Your task to perform on an android device: delete a single message in the gmail app Image 0: 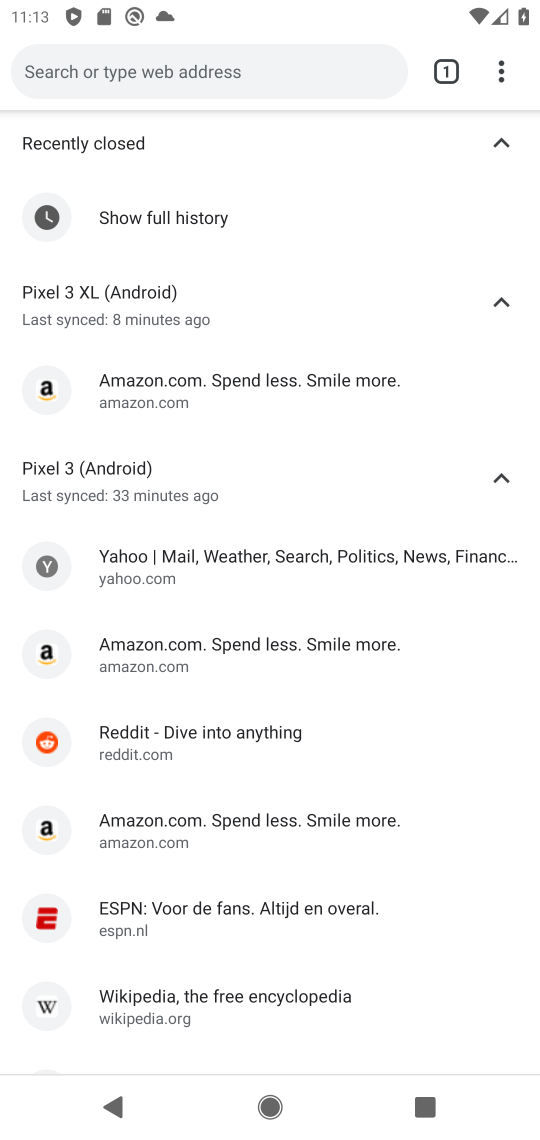
Step 0: press home button
Your task to perform on an android device: delete a single message in the gmail app Image 1: 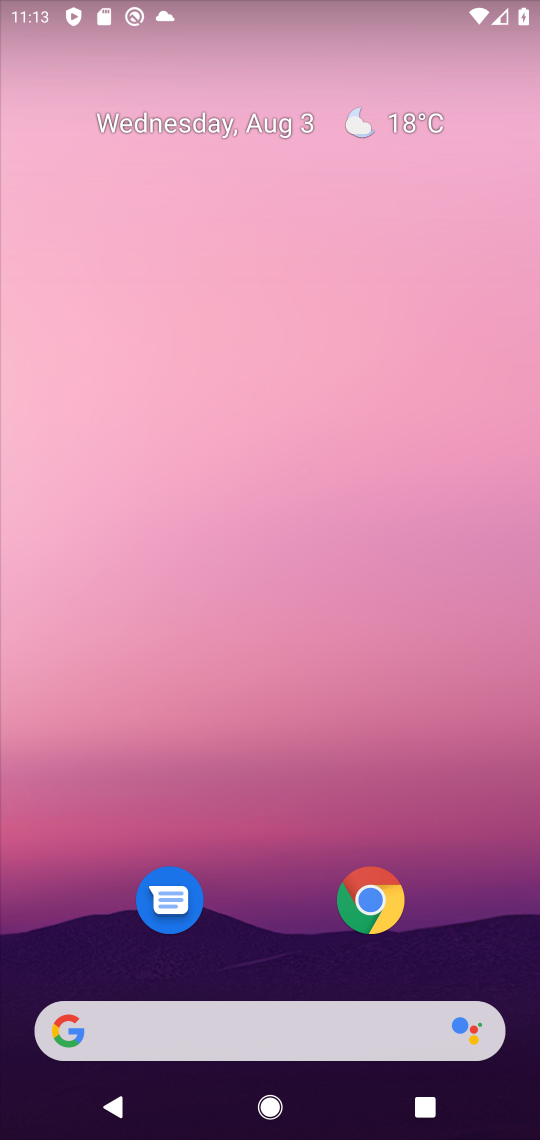
Step 1: drag from (328, 776) to (340, 19)
Your task to perform on an android device: delete a single message in the gmail app Image 2: 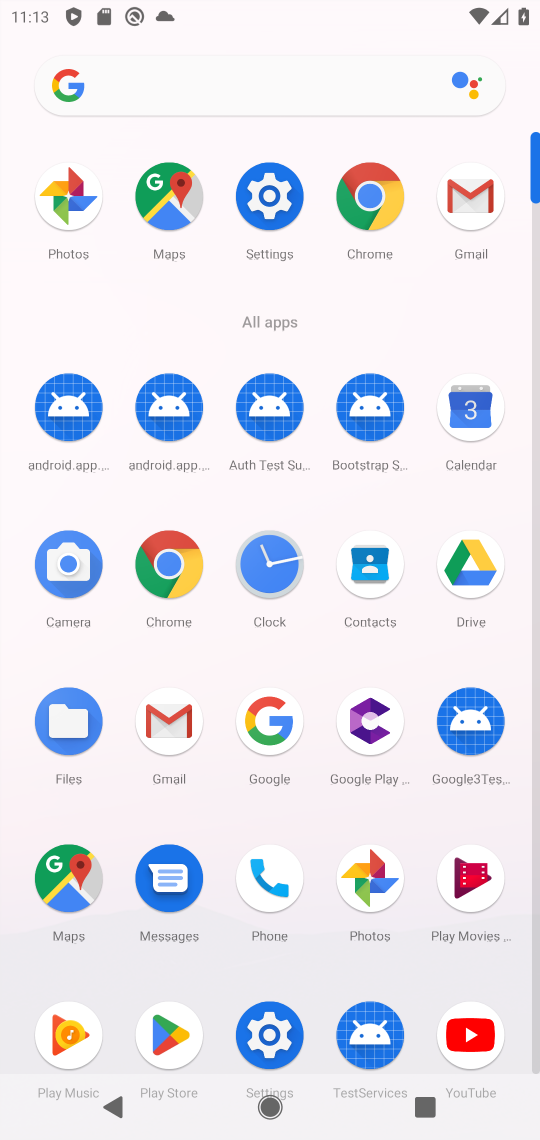
Step 2: click (473, 193)
Your task to perform on an android device: delete a single message in the gmail app Image 3: 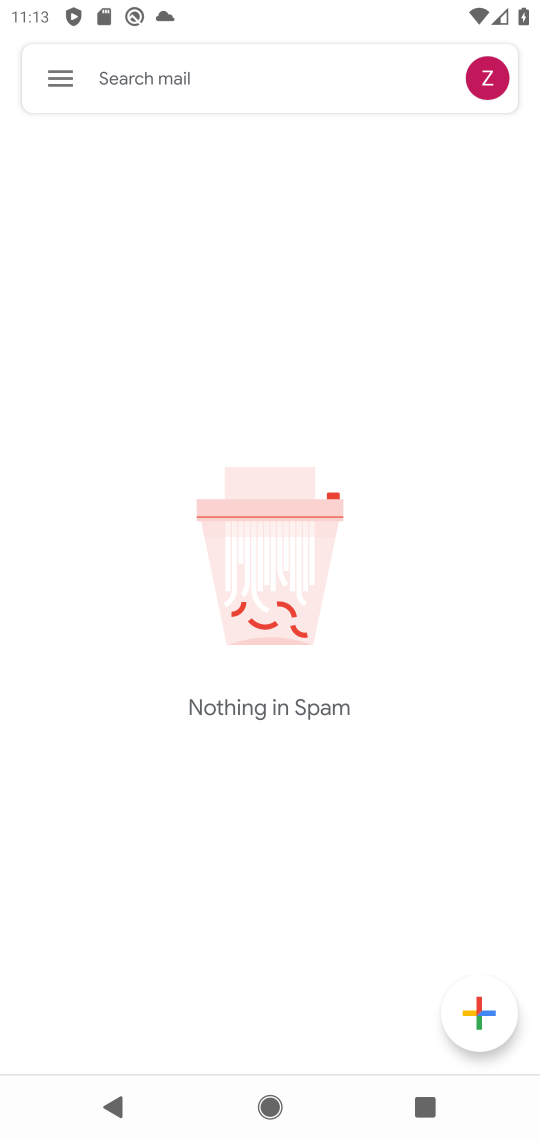
Step 3: click (62, 82)
Your task to perform on an android device: delete a single message in the gmail app Image 4: 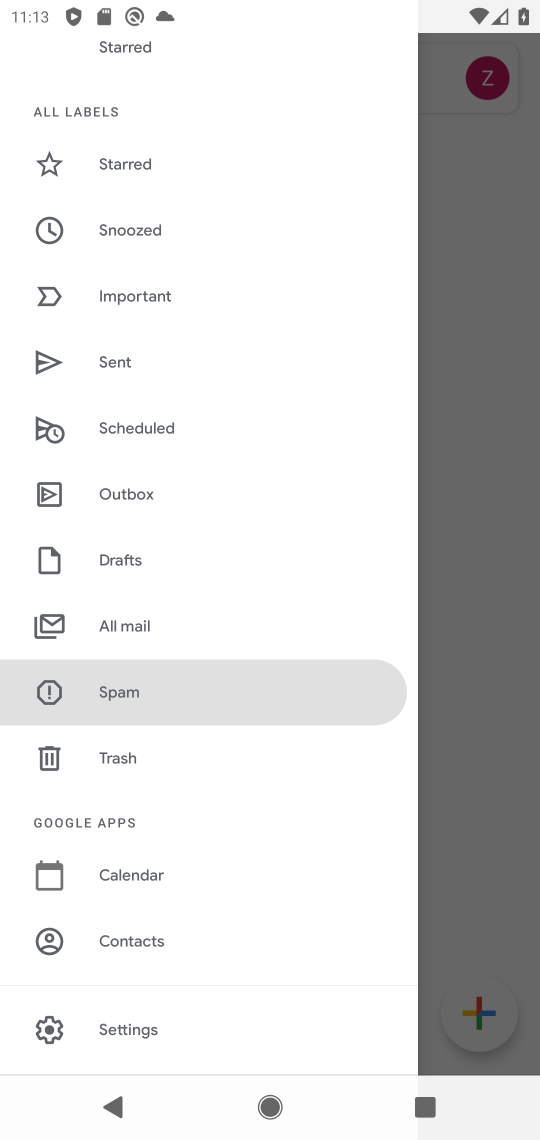
Step 4: click (119, 615)
Your task to perform on an android device: delete a single message in the gmail app Image 5: 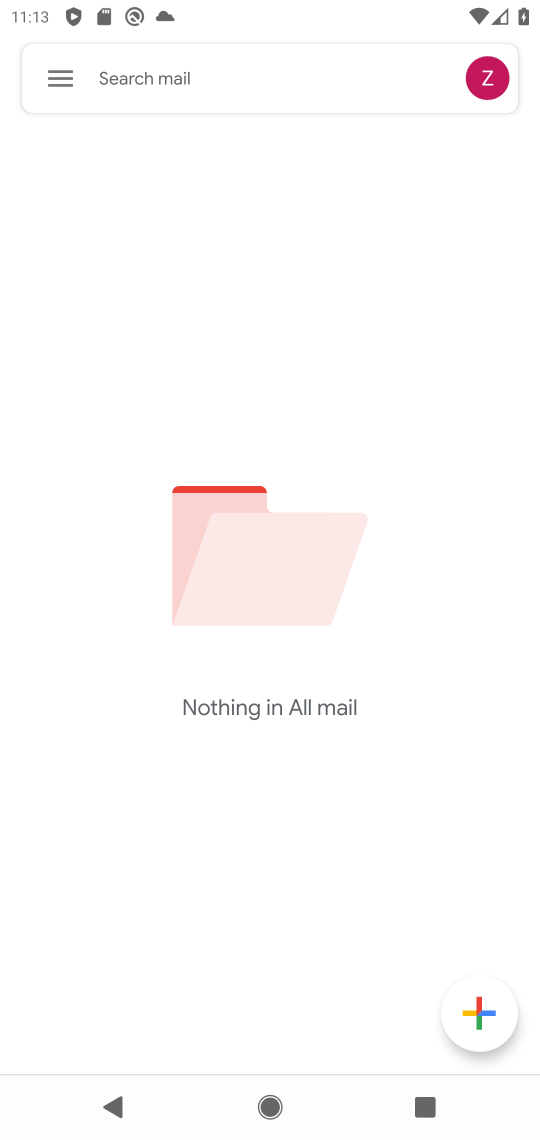
Step 5: task complete